Your task to perform on an android device: Open Google Chrome and click the shortcut for Amazon.com Image 0: 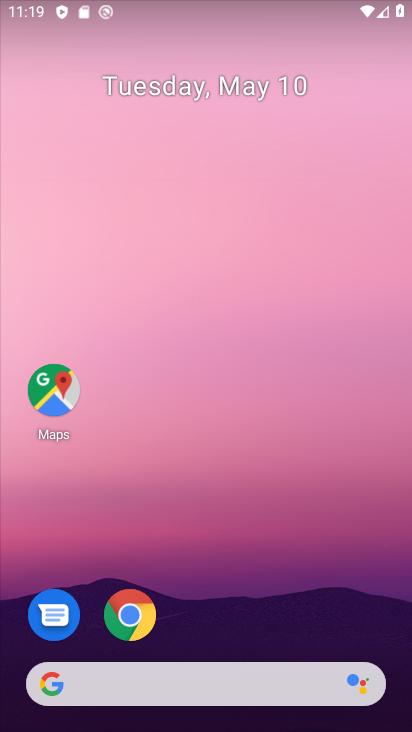
Step 0: drag from (213, 549) to (212, 8)
Your task to perform on an android device: Open Google Chrome and click the shortcut for Amazon.com Image 1: 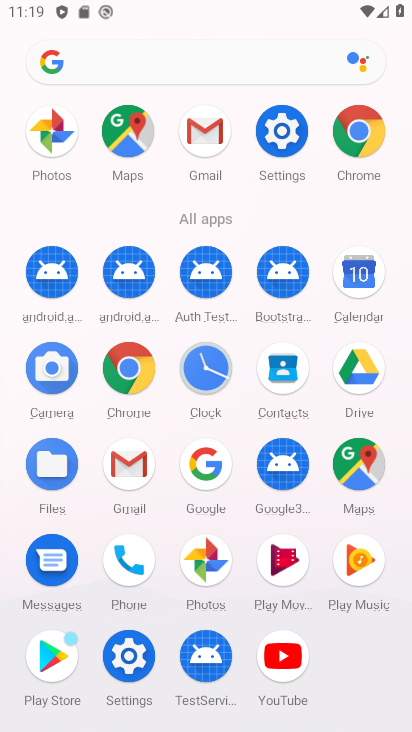
Step 1: drag from (5, 600) to (19, 229)
Your task to perform on an android device: Open Google Chrome and click the shortcut for Amazon.com Image 2: 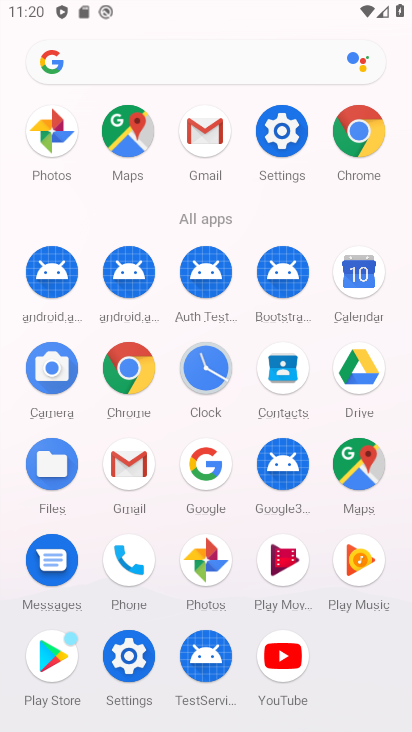
Step 2: click (128, 359)
Your task to perform on an android device: Open Google Chrome and click the shortcut for Amazon.com Image 3: 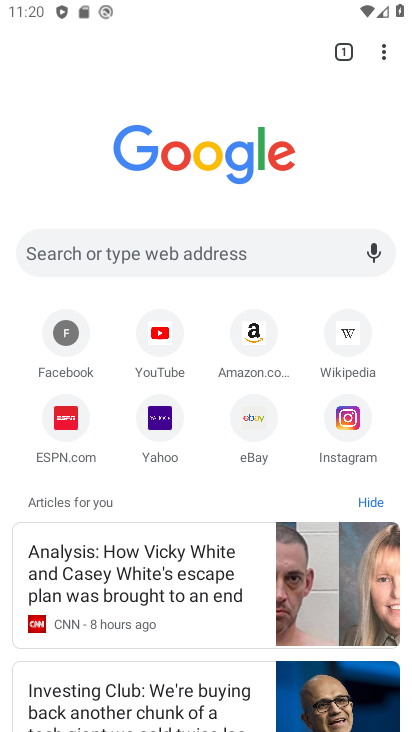
Step 3: click (261, 320)
Your task to perform on an android device: Open Google Chrome and click the shortcut for Amazon.com Image 4: 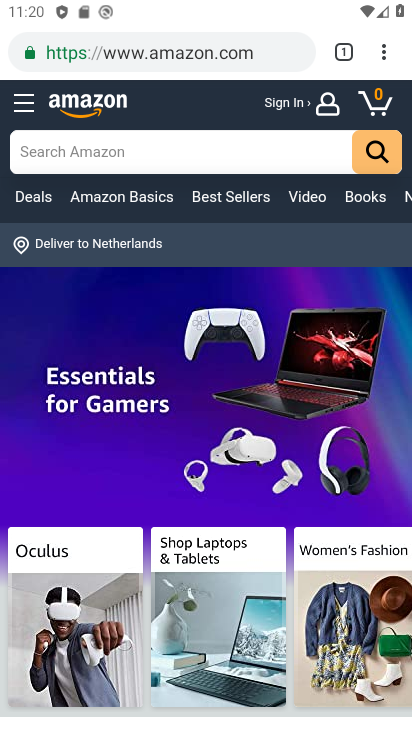
Step 4: drag from (381, 48) to (260, 516)
Your task to perform on an android device: Open Google Chrome and click the shortcut for Amazon.com Image 5: 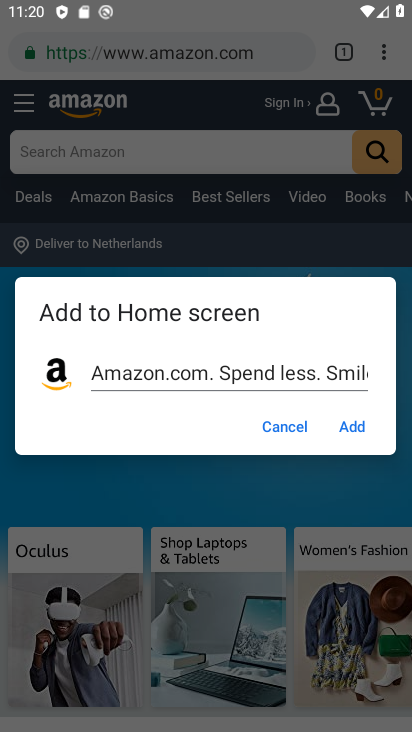
Step 5: click (352, 427)
Your task to perform on an android device: Open Google Chrome and click the shortcut for Amazon.com Image 6: 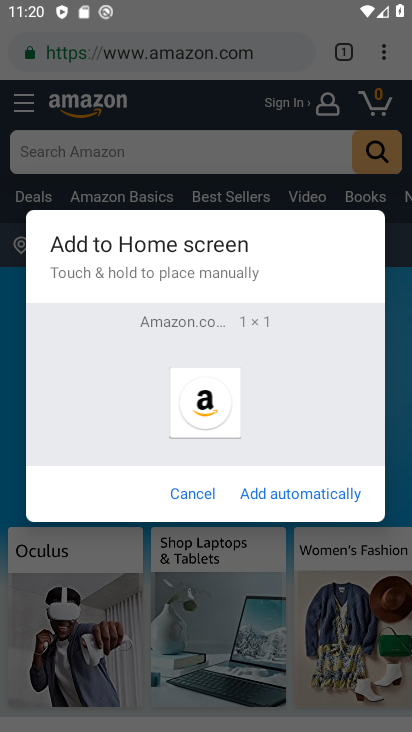
Step 6: click (284, 491)
Your task to perform on an android device: Open Google Chrome and click the shortcut for Amazon.com Image 7: 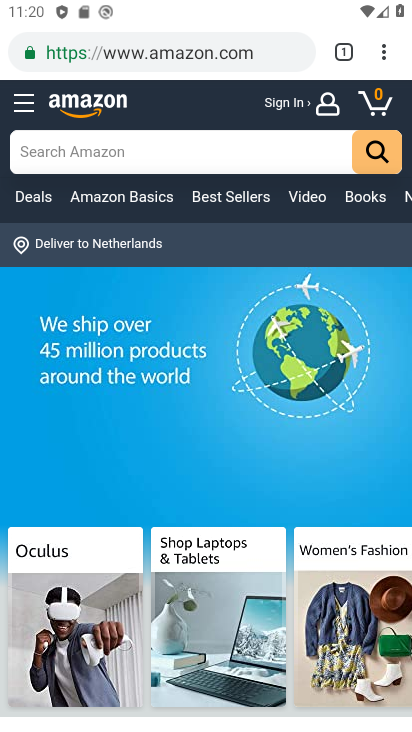
Step 7: task complete